Your task to perform on an android device: Go to location settings Image 0: 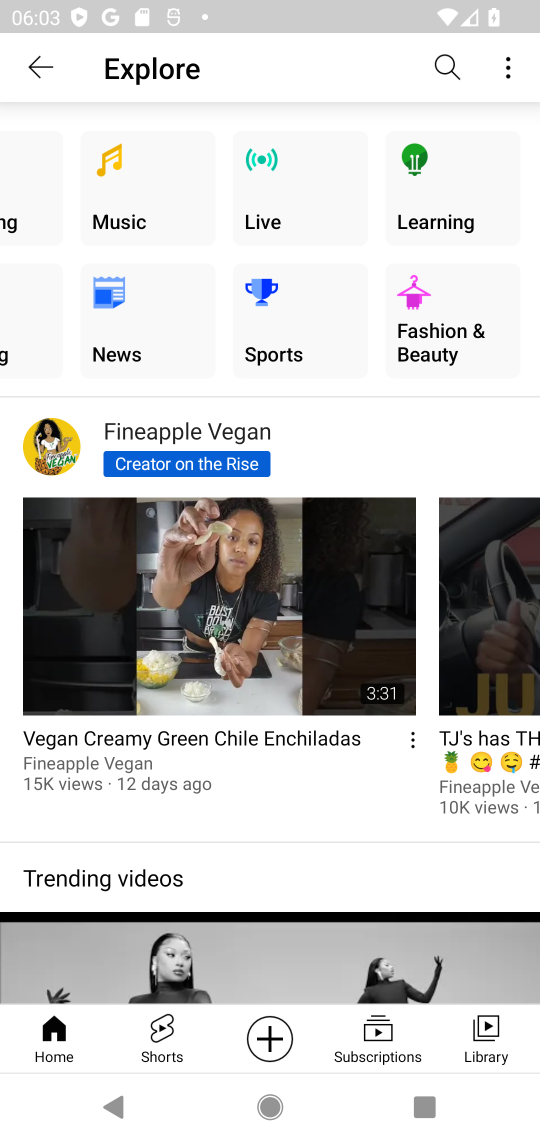
Step 0: press home button
Your task to perform on an android device: Go to location settings Image 1: 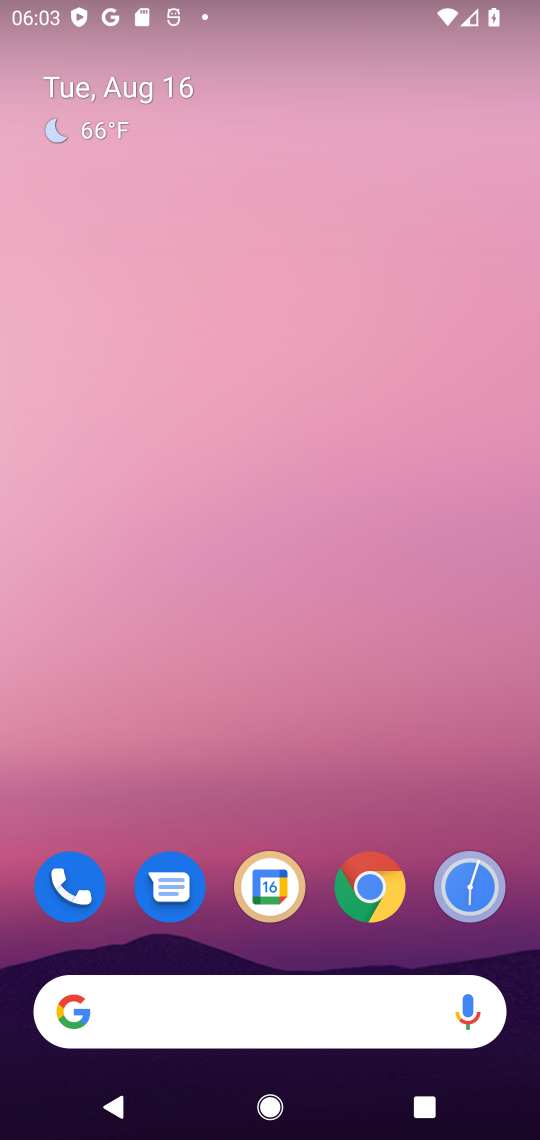
Step 1: drag from (408, 752) to (405, 100)
Your task to perform on an android device: Go to location settings Image 2: 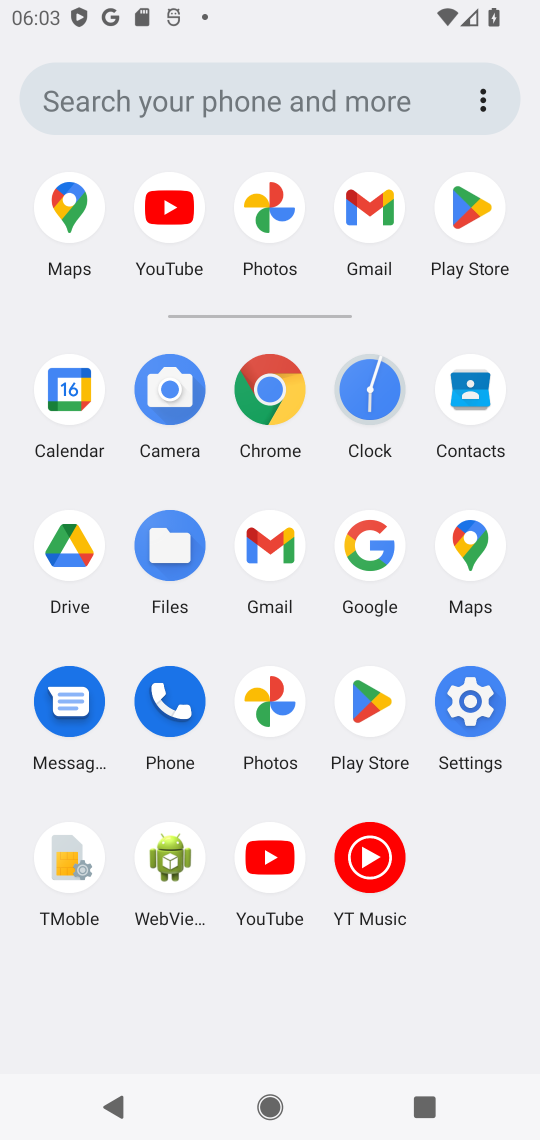
Step 2: click (478, 694)
Your task to perform on an android device: Go to location settings Image 3: 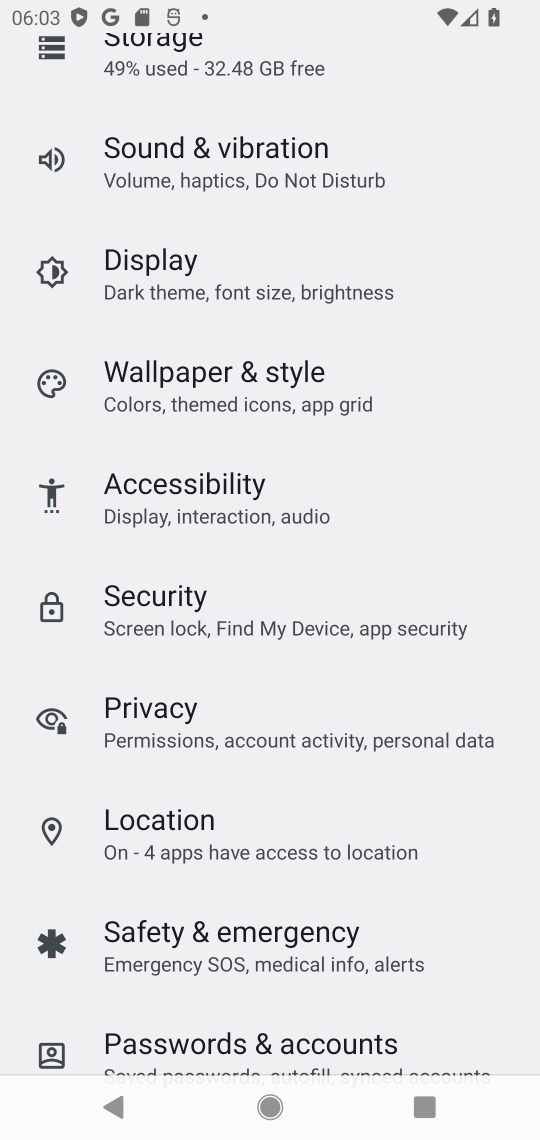
Step 3: click (238, 853)
Your task to perform on an android device: Go to location settings Image 4: 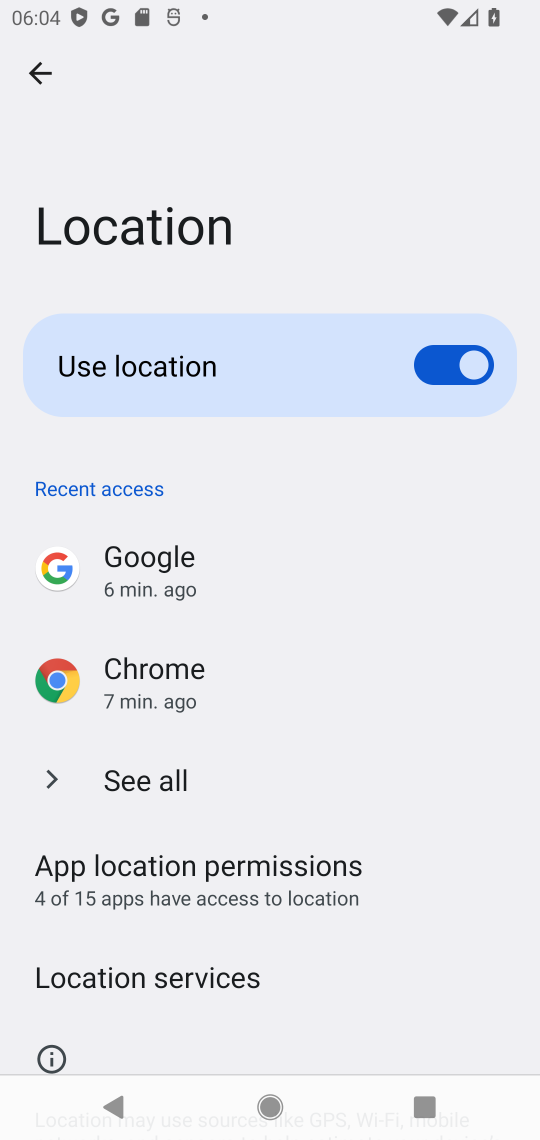
Step 4: task complete